Your task to perform on an android device: allow cookies in the chrome app Image 0: 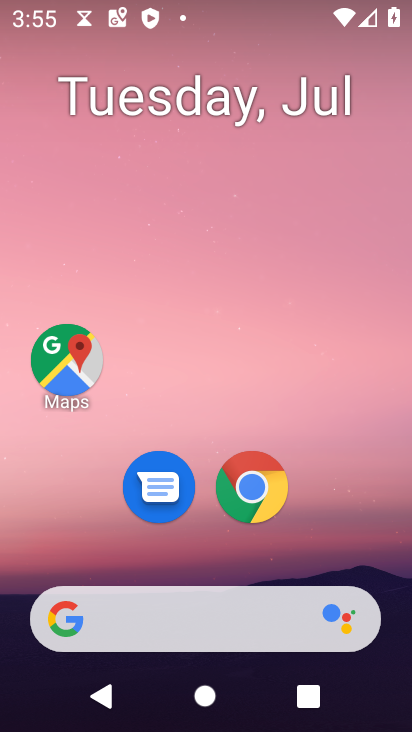
Step 0: click (270, 496)
Your task to perform on an android device: allow cookies in the chrome app Image 1: 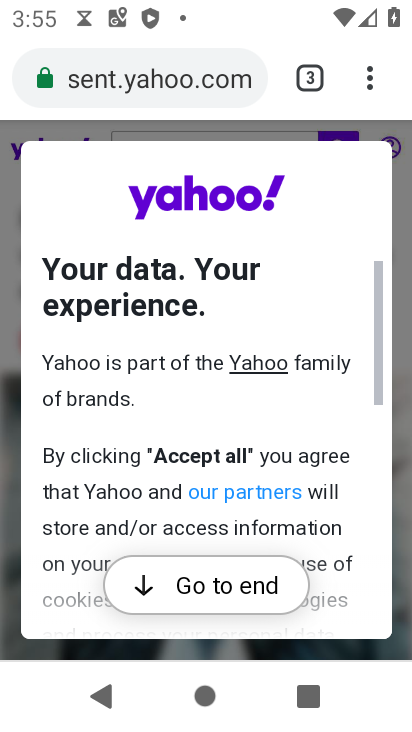
Step 1: drag from (372, 80) to (110, 553)
Your task to perform on an android device: allow cookies in the chrome app Image 2: 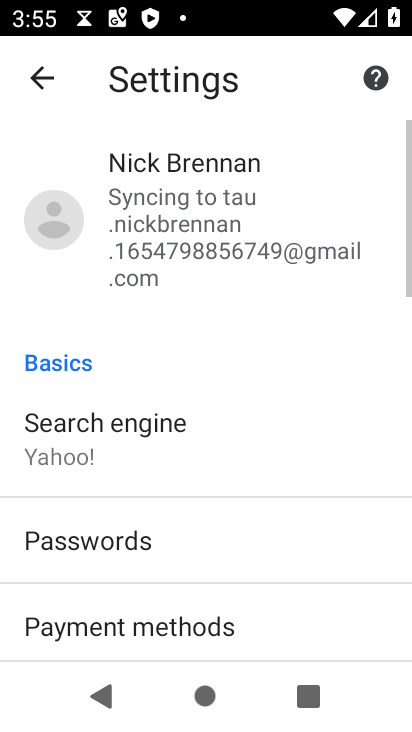
Step 2: drag from (151, 461) to (210, 108)
Your task to perform on an android device: allow cookies in the chrome app Image 3: 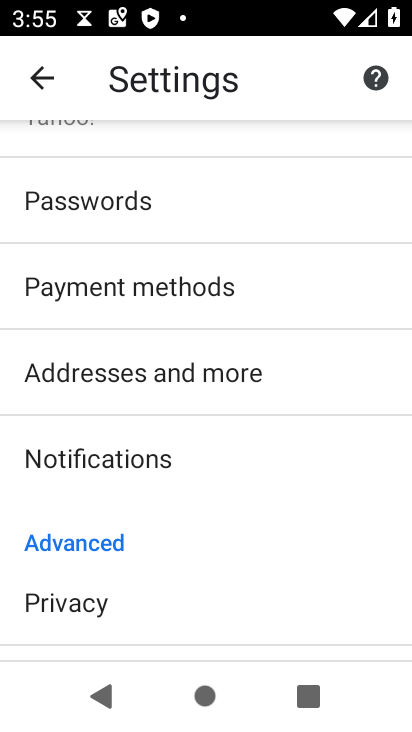
Step 3: drag from (117, 588) to (285, 79)
Your task to perform on an android device: allow cookies in the chrome app Image 4: 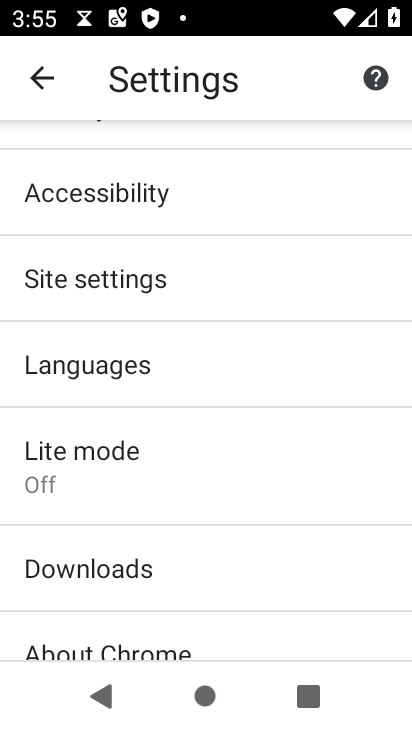
Step 4: click (89, 279)
Your task to perform on an android device: allow cookies in the chrome app Image 5: 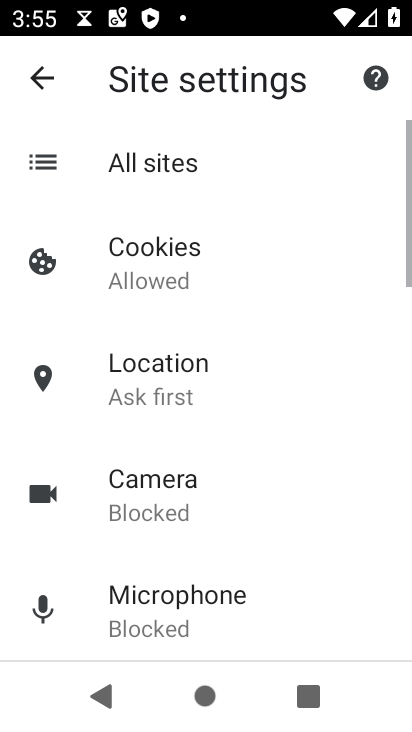
Step 5: click (192, 257)
Your task to perform on an android device: allow cookies in the chrome app Image 6: 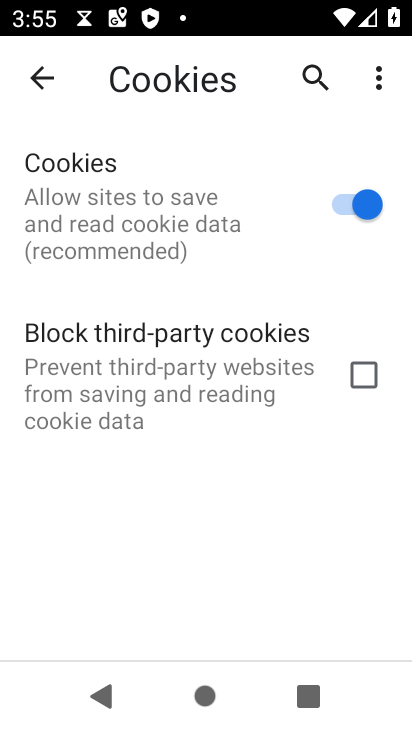
Step 6: task complete